Your task to perform on an android device: turn pop-ups on in chrome Image 0: 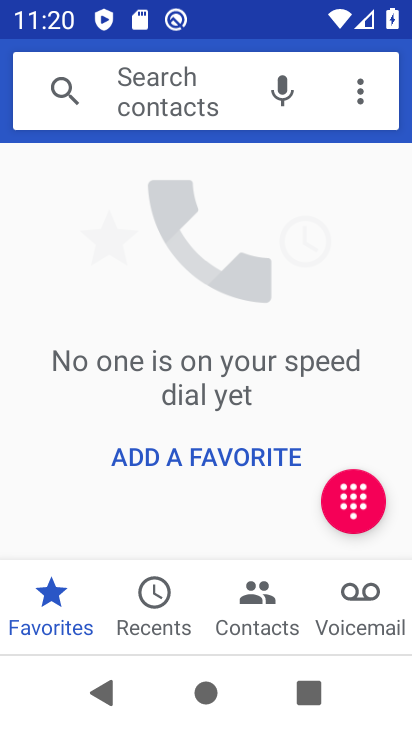
Step 0: press home button
Your task to perform on an android device: turn pop-ups on in chrome Image 1: 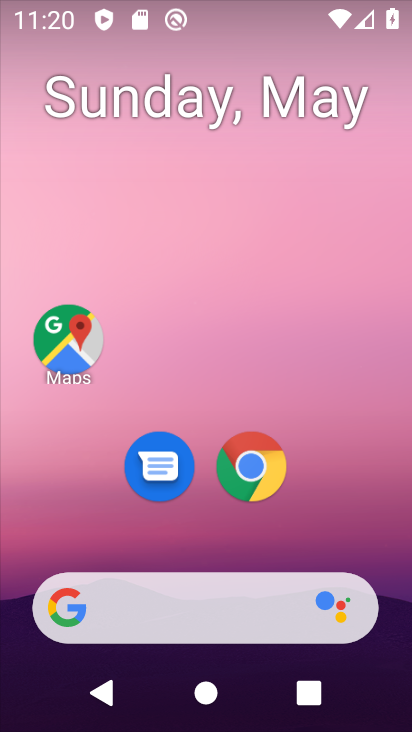
Step 1: click (249, 460)
Your task to perform on an android device: turn pop-ups on in chrome Image 2: 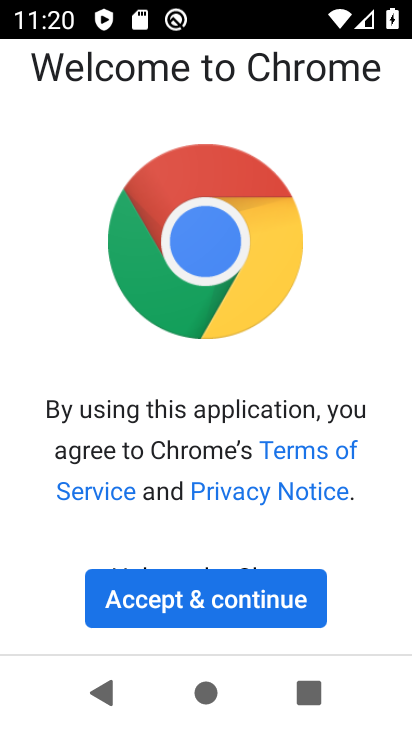
Step 2: click (227, 594)
Your task to perform on an android device: turn pop-ups on in chrome Image 3: 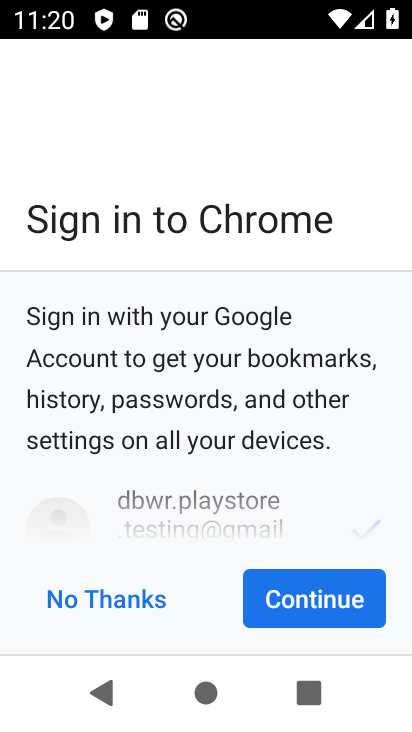
Step 3: click (281, 613)
Your task to perform on an android device: turn pop-ups on in chrome Image 4: 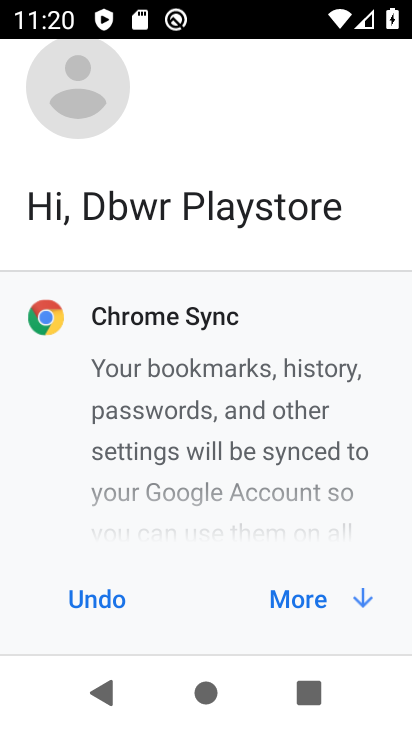
Step 4: click (296, 603)
Your task to perform on an android device: turn pop-ups on in chrome Image 5: 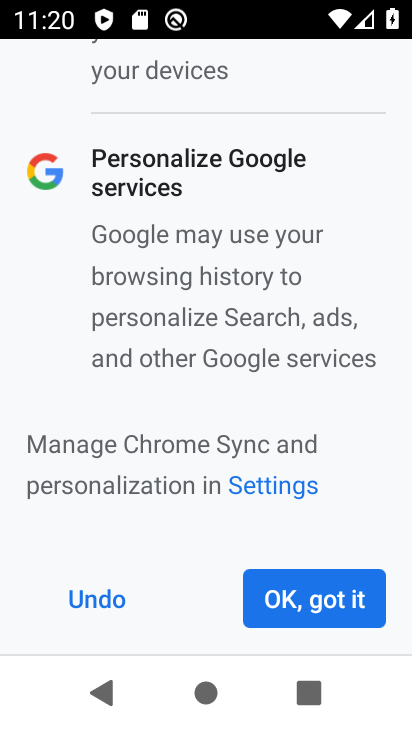
Step 5: click (296, 603)
Your task to perform on an android device: turn pop-ups on in chrome Image 6: 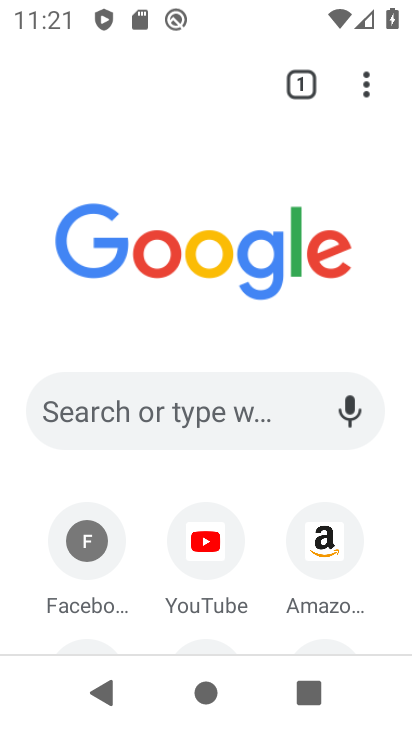
Step 6: click (358, 75)
Your task to perform on an android device: turn pop-ups on in chrome Image 7: 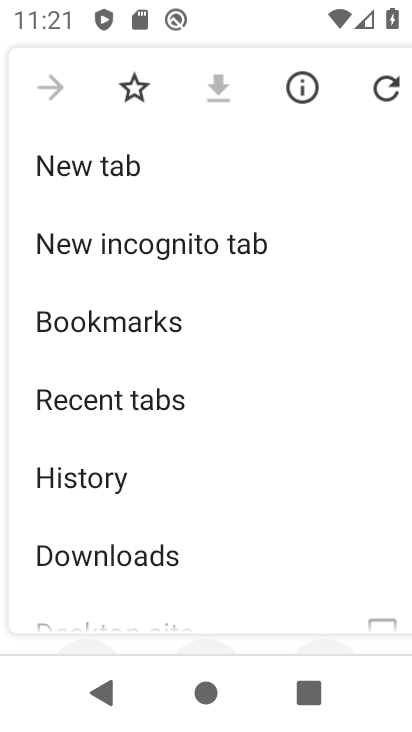
Step 7: drag from (212, 577) to (270, 77)
Your task to perform on an android device: turn pop-ups on in chrome Image 8: 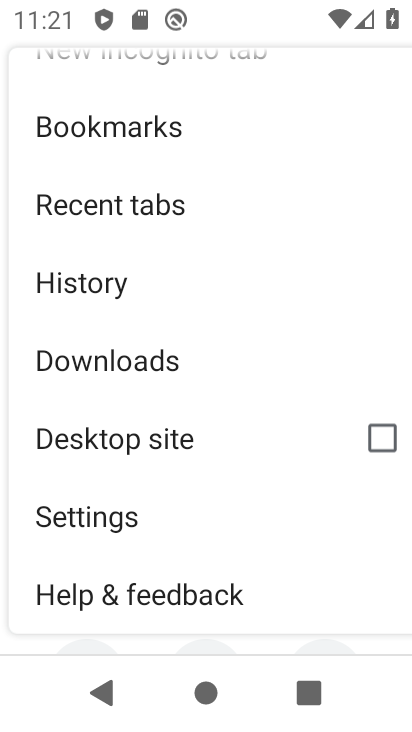
Step 8: drag from (204, 514) to (210, 355)
Your task to perform on an android device: turn pop-ups on in chrome Image 9: 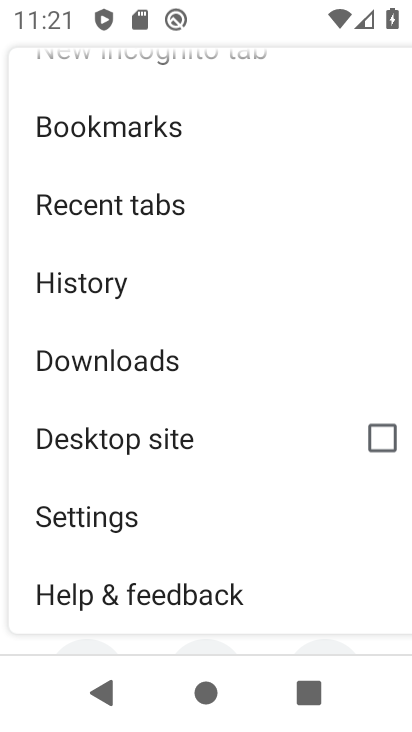
Step 9: click (99, 521)
Your task to perform on an android device: turn pop-ups on in chrome Image 10: 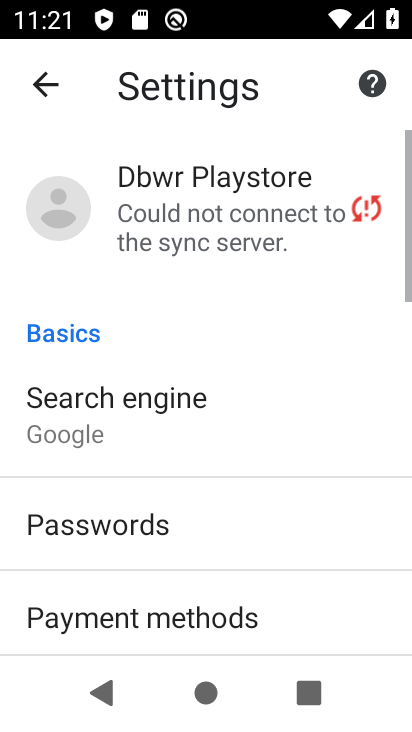
Step 10: drag from (279, 521) to (288, 68)
Your task to perform on an android device: turn pop-ups on in chrome Image 11: 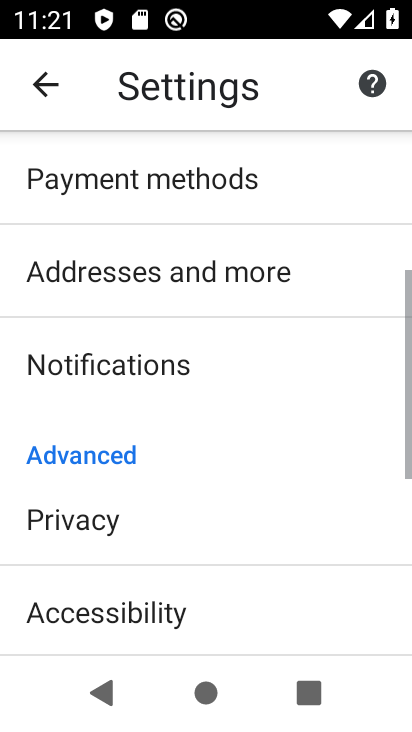
Step 11: drag from (182, 556) to (190, 181)
Your task to perform on an android device: turn pop-ups on in chrome Image 12: 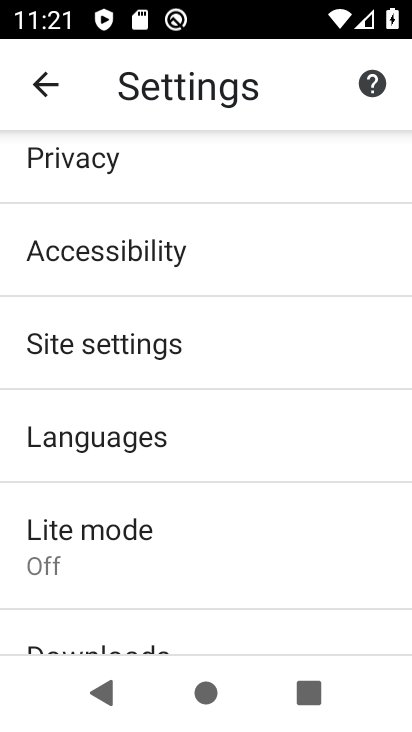
Step 12: click (114, 334)
Your task to perform on an android device: turn pop-ups on in chrome Image 13: 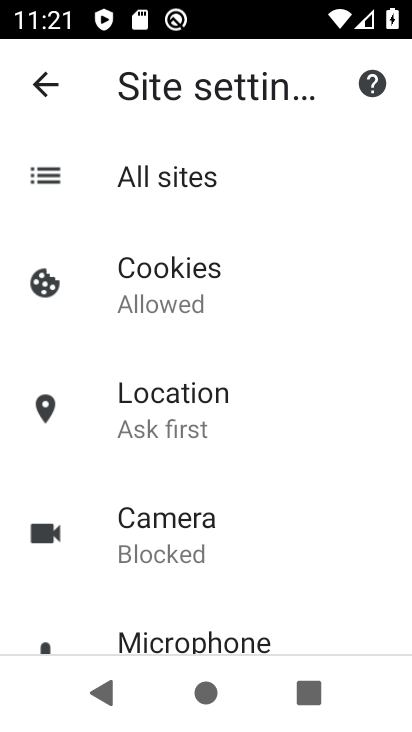
Step 13: drag from (403, 546) to (338, 143)
Your task to perform on an android device: turn pop-ups on in chrome Image 14: 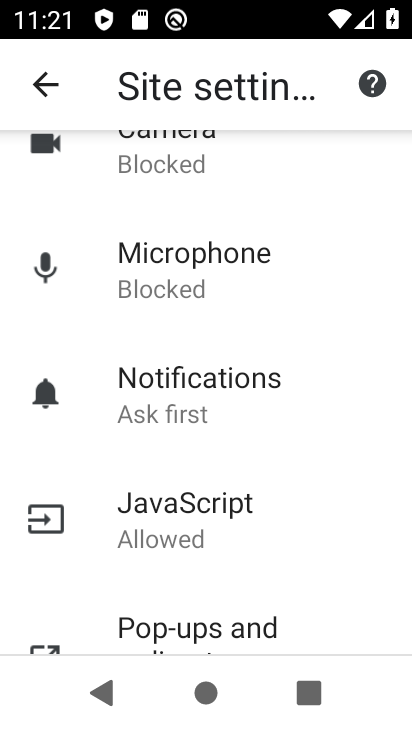
Step 14: click (148, 622)
Your task to perform on an android device: turn pop-ups on in chrome Image 15: 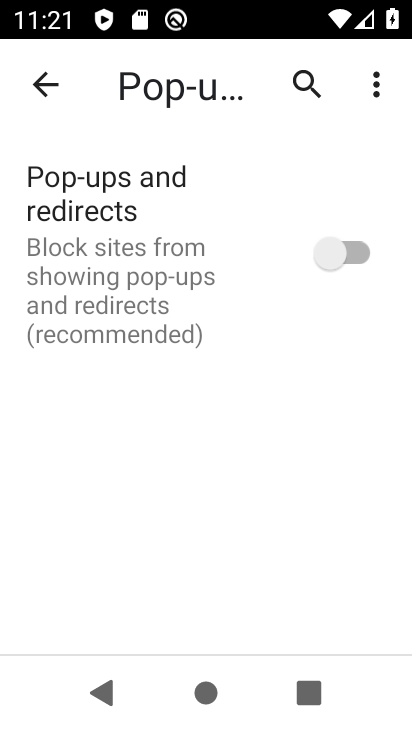
Step 15: click (348, 257)
Your task to perform on an android device: turn pop-ups on in chrome Image 16: 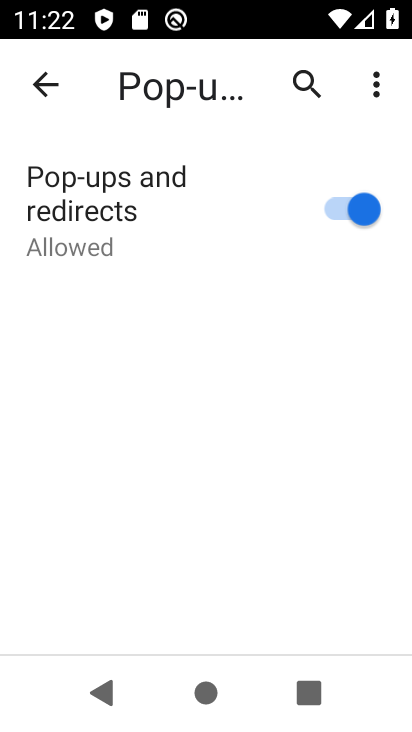
Step 16: task complete